Your task to perform on an android device: turn on sleep mode Image 0: 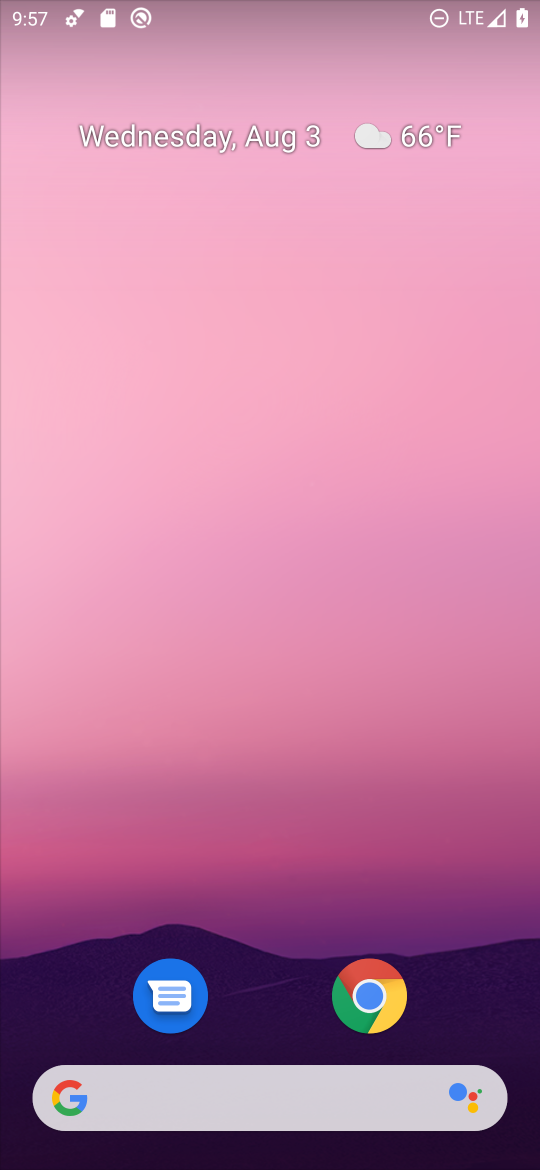
Step 0: drag from (315, 845) to (275, 0)
Your task to perform on an android device: turn on sleep mode Image 1: 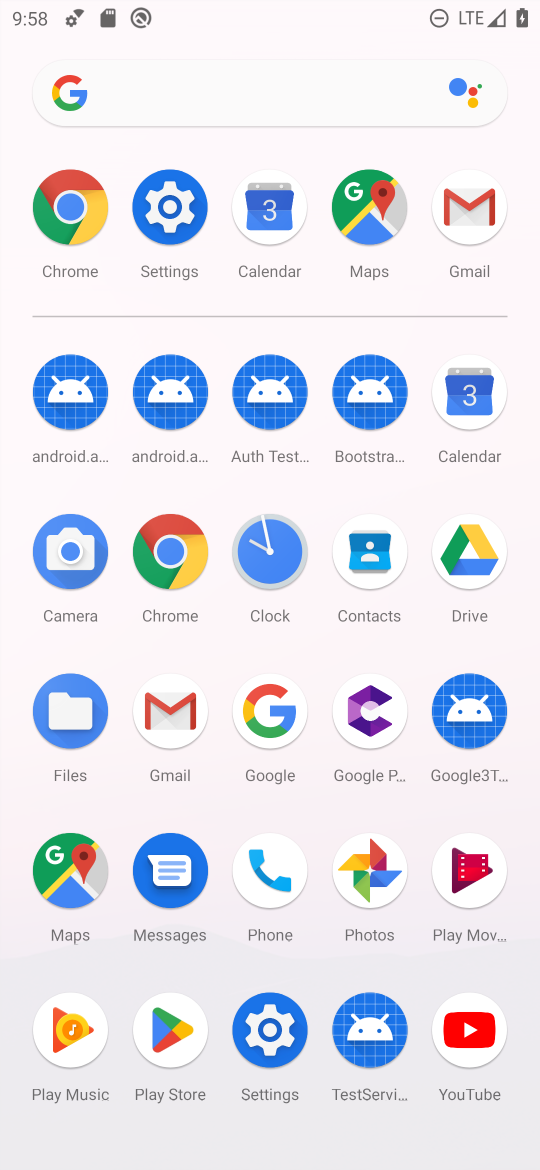
Step 1: click (161, 202)
Your task to perform on an android device: turn on sleep mode Image 2: 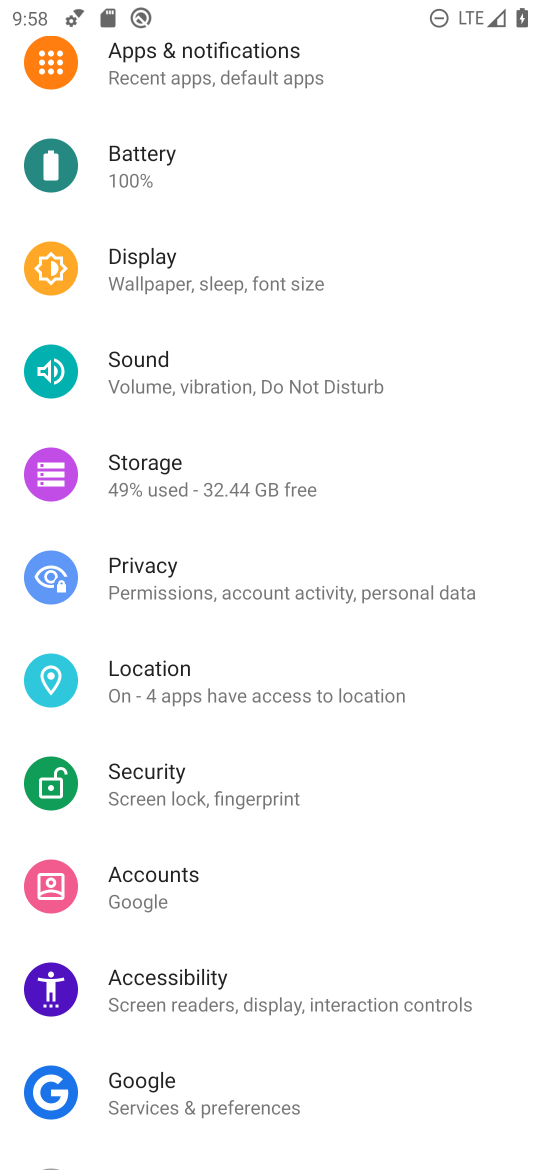
Step 2: click (213, 267)
Your task to perform on an android device: turn on sleep mode Image 3: 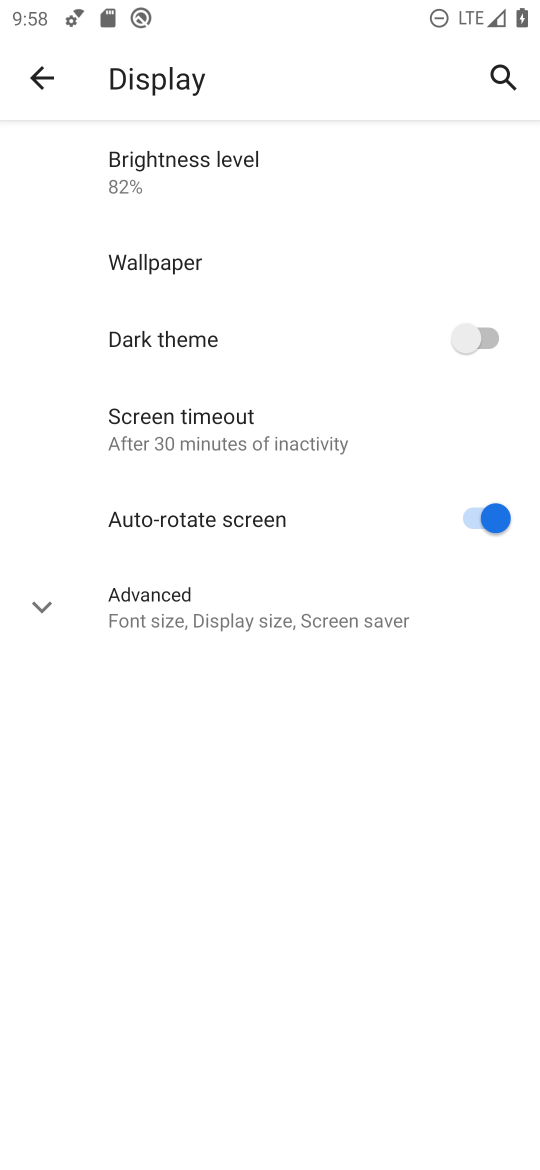
Step 3: click (45, 610)
Your task to perform on an android device: turn on sleep mode Image 4: 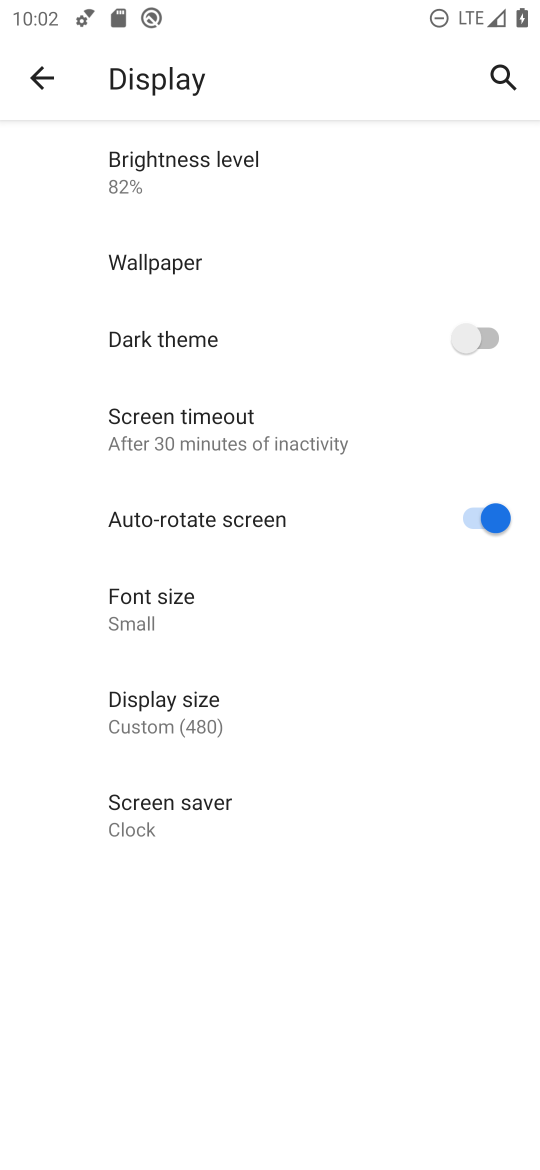
Step 4: task complete